Your task to perform on an android device: install app "Google Duo" Image 0: 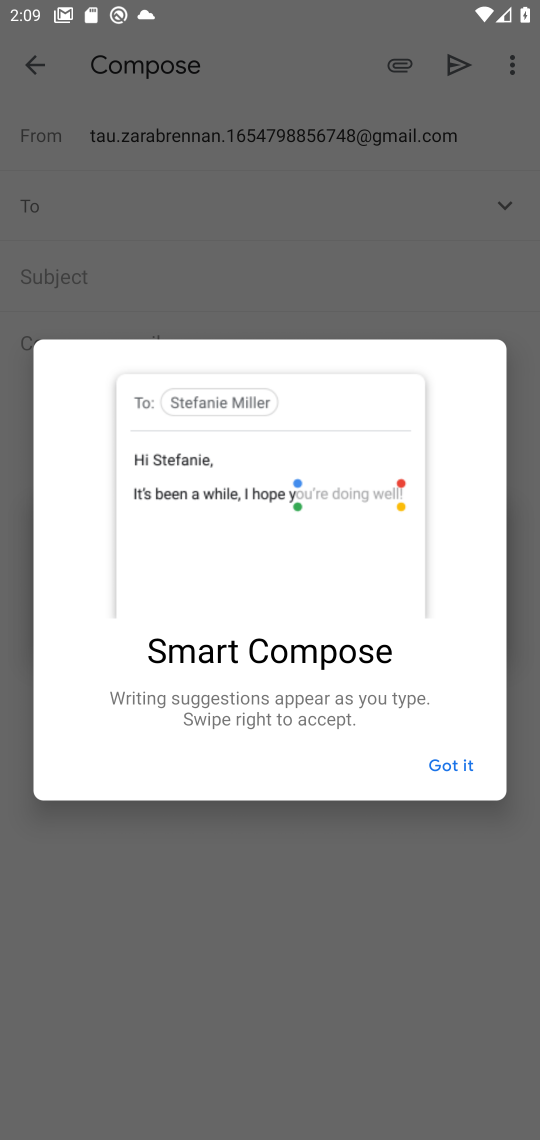
Step 0: press home button
Your task to perform on an android device: install app "Google Duo" Image 1: 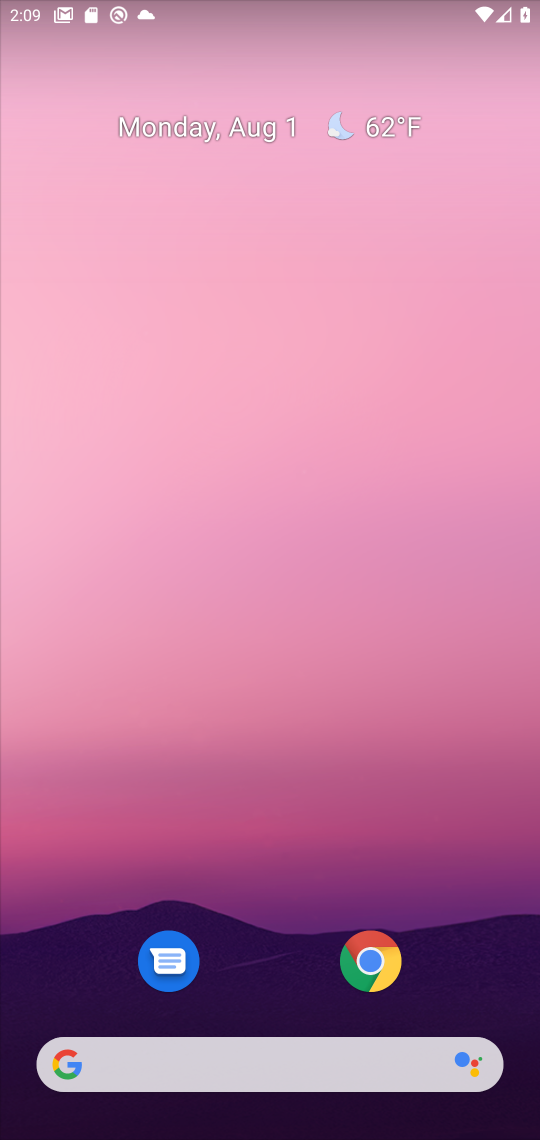
Step 1: drag from (237, 949) to (239, 52)
Your task to perform on an android device: install app "Google Duo" Image 2: 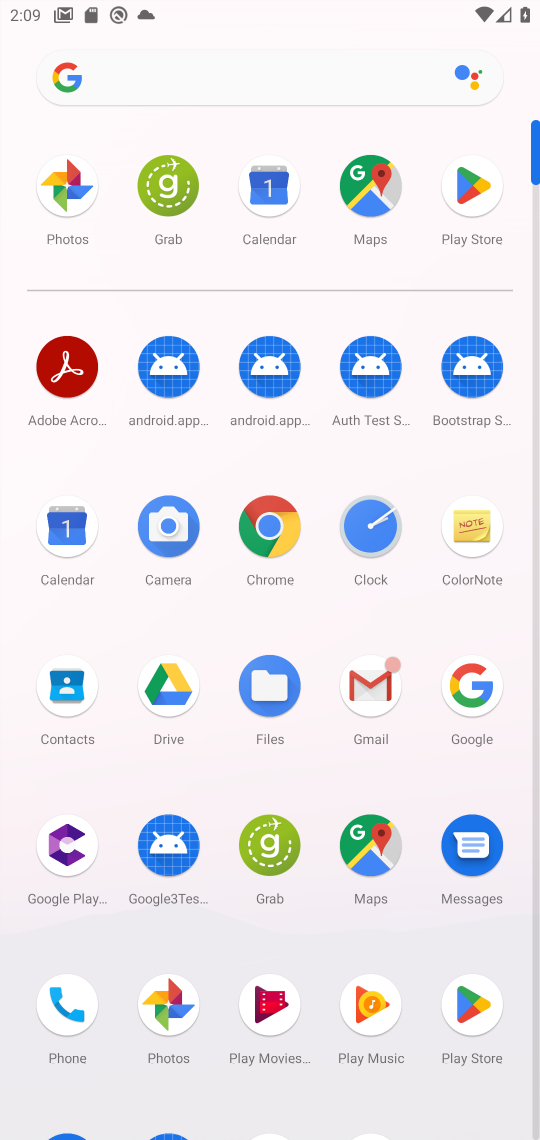
Step 2: click (487, 180)
Your task to perform on an android device: install app "Google Duo" Image 3: 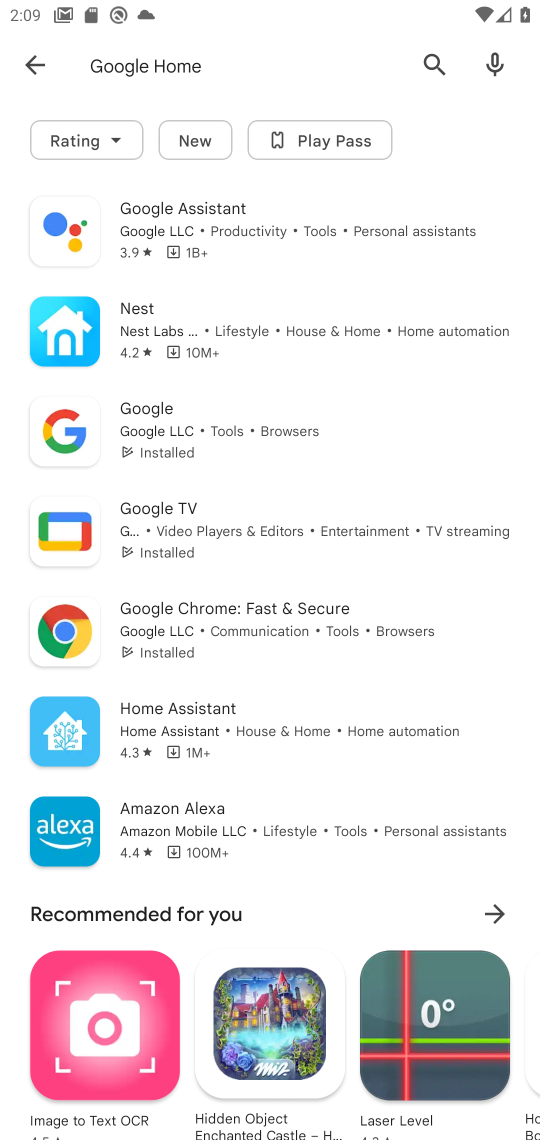
Step 3: click (325, 70)
Your task to perform on an android device: install app "Google Duo" Image 4: 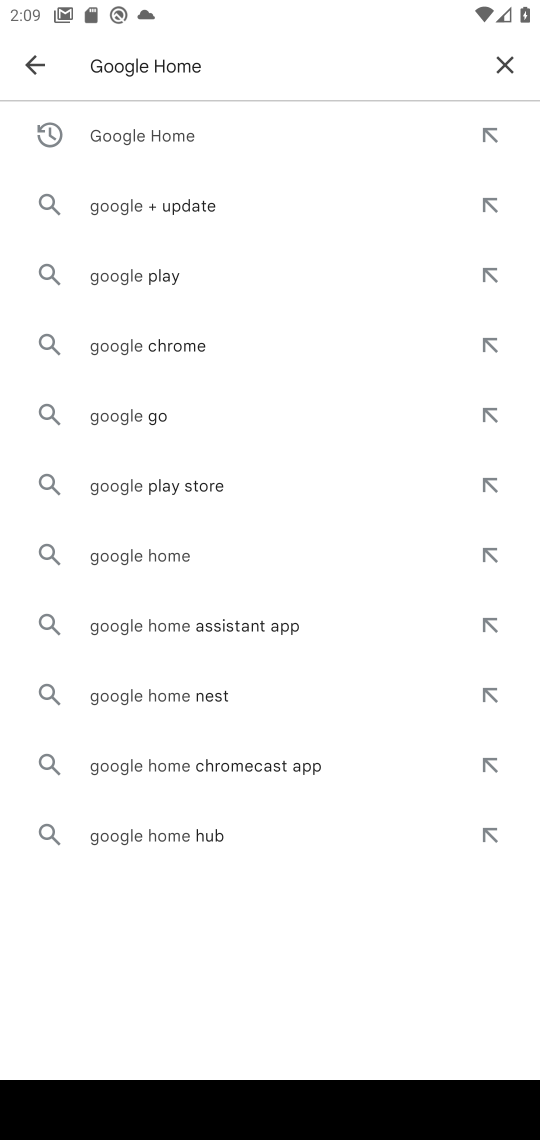
Step 4: click (495, 53)
Your task to perform on an android device: install app "Google Duo" Image 5: 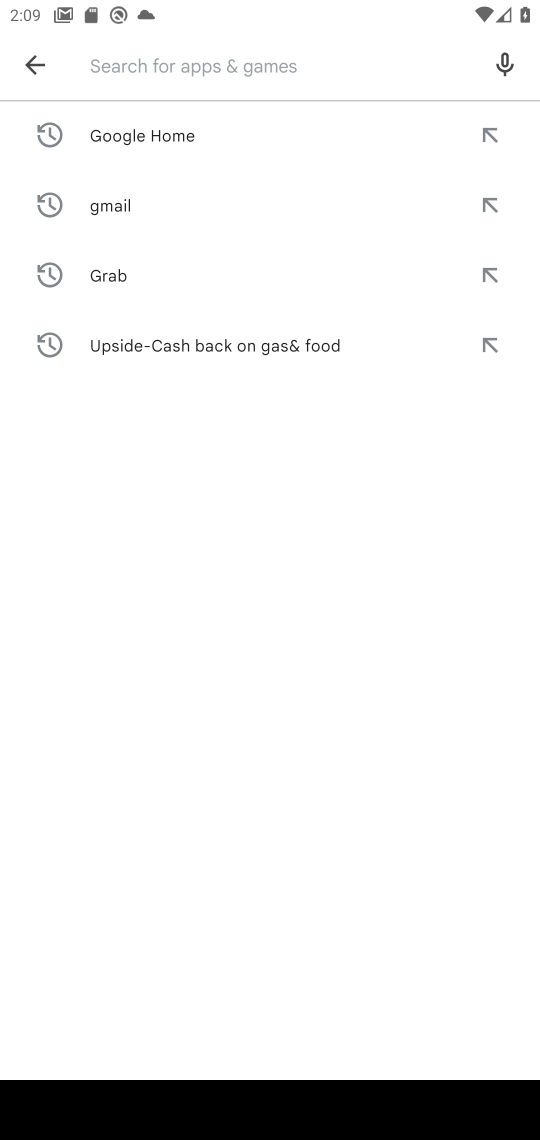
Step 5: type "Google Duo"
Your task to perform on an android device: install app "Google Duo" Image 6: 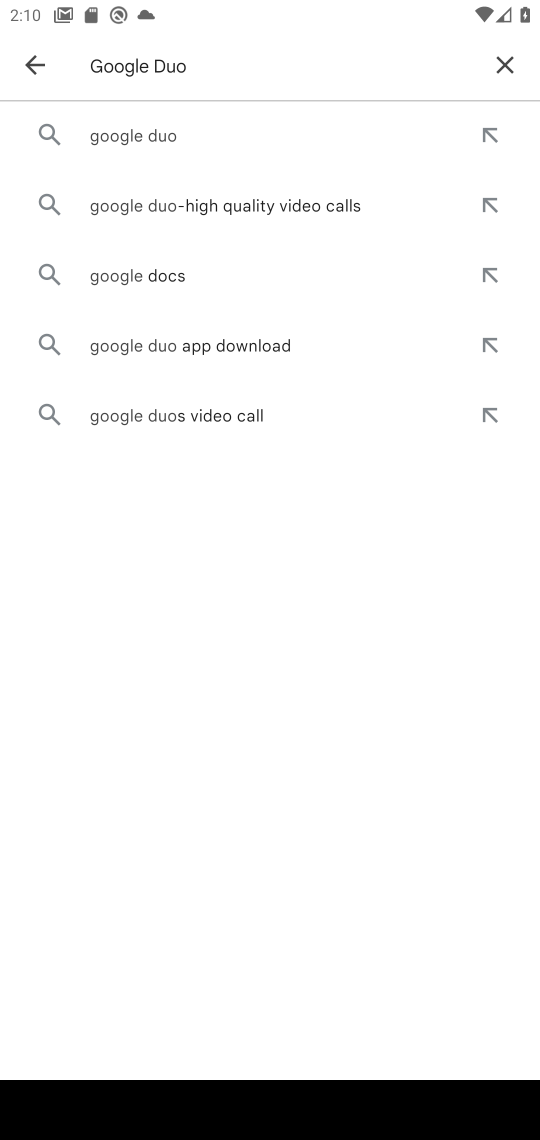
Step 6: press enter
Your task to perform on an android device: install app "Google Duo" Image 7: 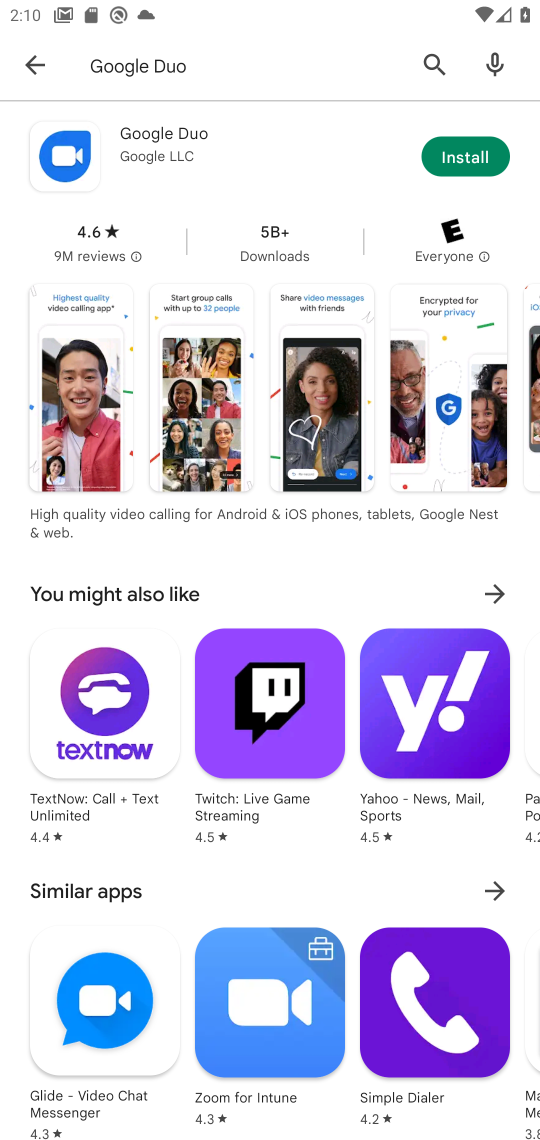
Step 7: click (466, 162)
Your task to perform on an android device: install app "Google Duo" Image 8: 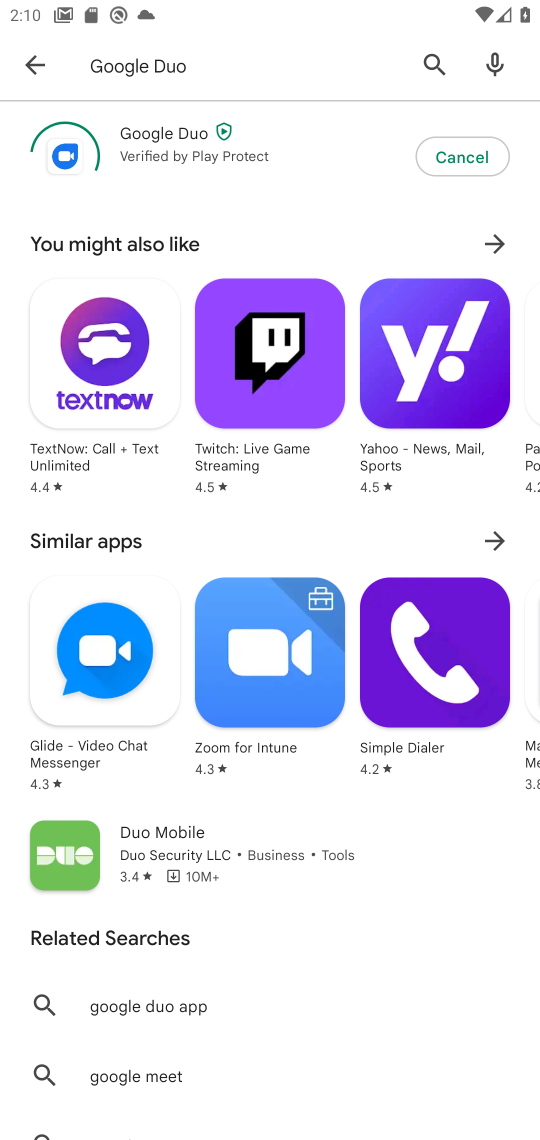
Step 8: click (325, 165)
Your task to perform on an android device: install app "Google Duo" Image 9: 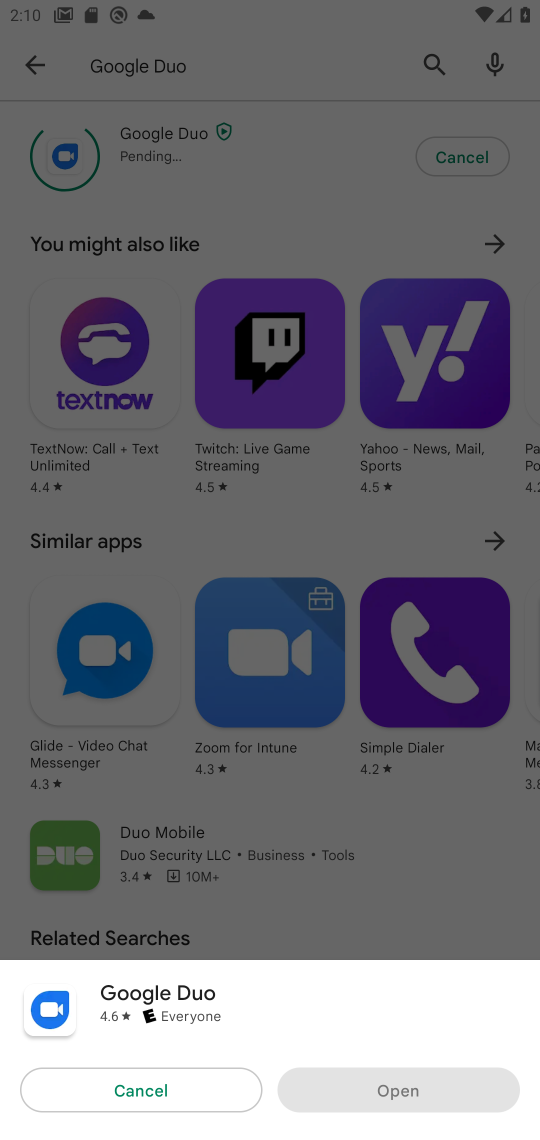
Step 9: click (273, 147)
Your task to perform on an android device: install app "Google Duo" Image 10: 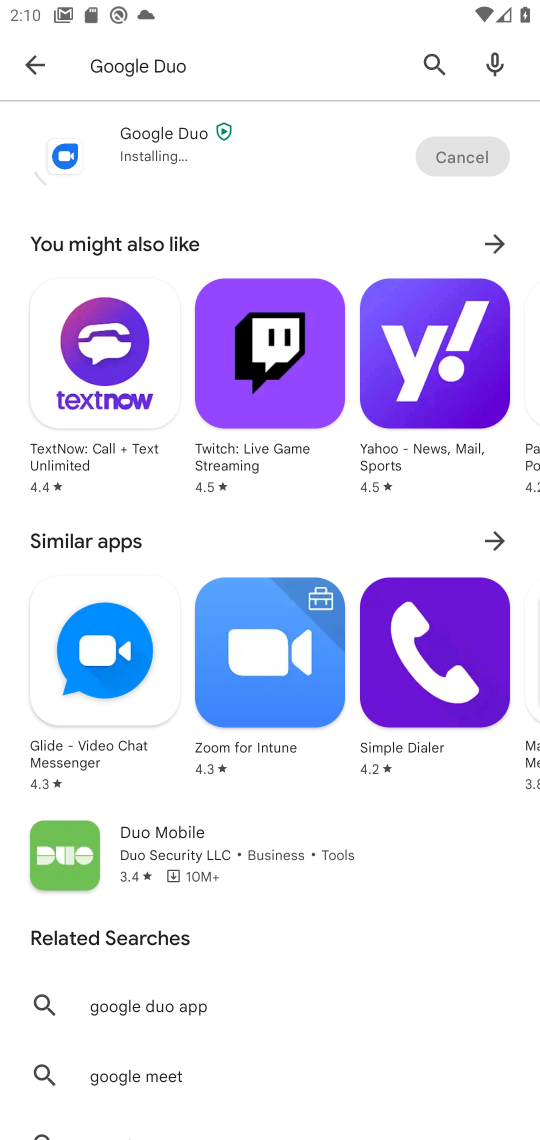
Step 10: task complete